Your task to perform on an android device: delete location history Image 0: 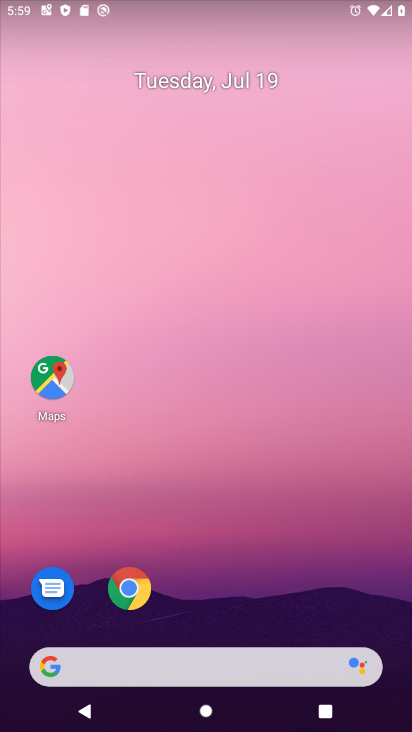
Step 0: drag from (217, 628) to (226, 2)
Your task to perform on an android device: delete location history Image 1: 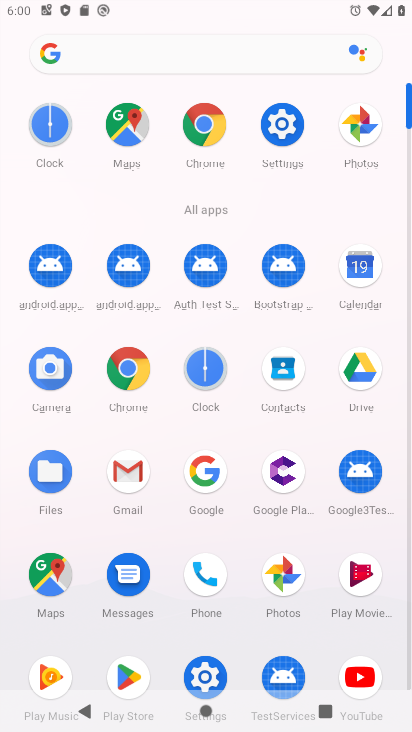
Step 1: click (31, 573)
Your task to perform on an android device: delete location history Image 2: 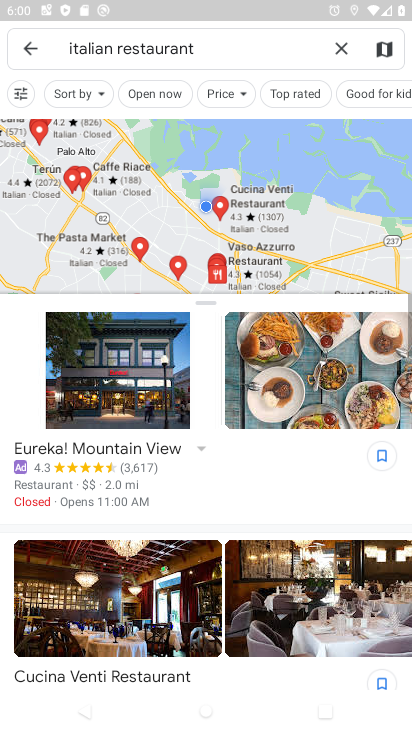
Step 2: click (34, 61)
Your task to perform on an android device: delete location history Image 3: 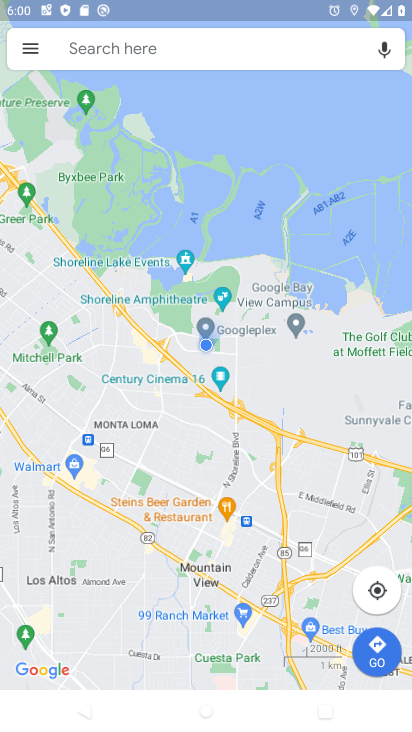
Step 3: click (43, 47)
Your task to perform on an android device: delete location history Image 4: 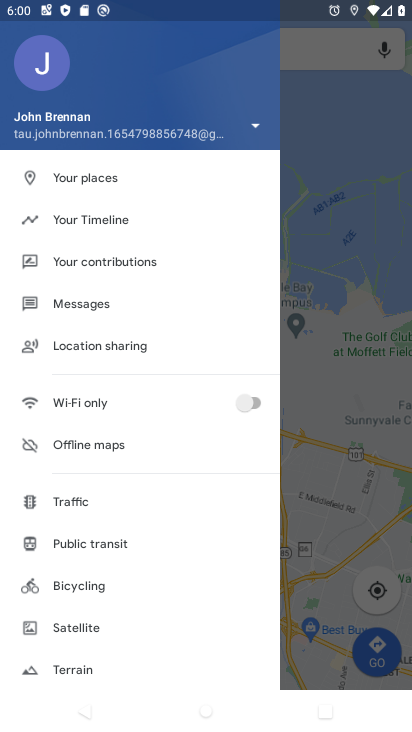
Step 4: click (110, 230)
Your task to perform on an android device: delete location history Image 5: 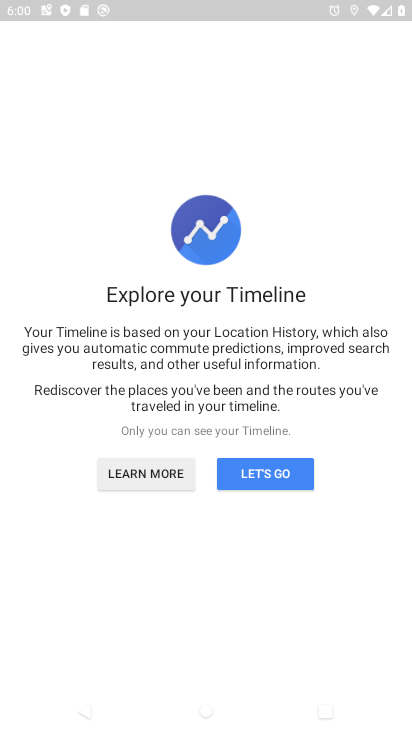
Step 5: click (263, 484)
Your task to perform on an android device: delete location history Image 6: 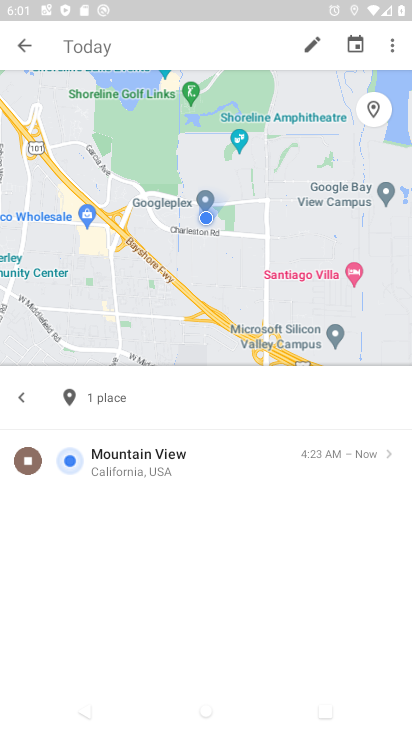
Step 6: click (401, 51)
Your task to perform on an android device: delete location history Image 7: 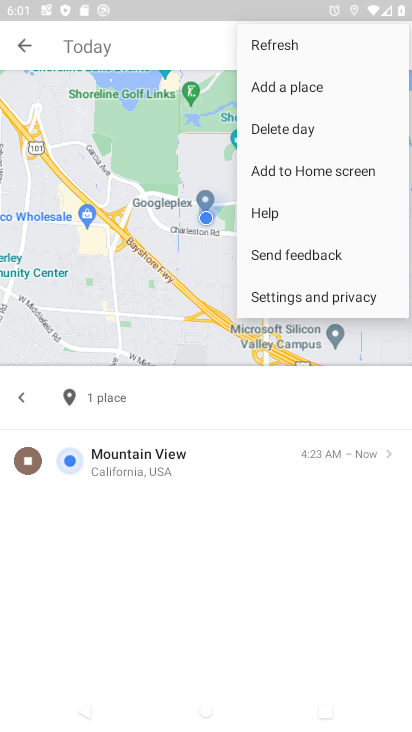
Step 7: click (292, 303)
Your task to perform on an android device: delete location history Image 8: 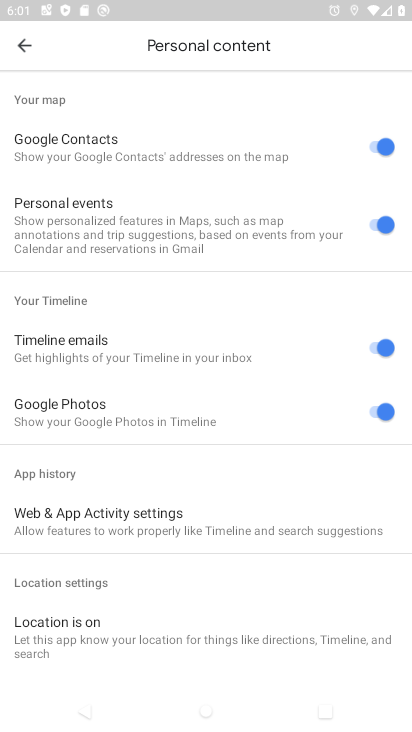
Step 8: drag from (130, 642) to (133, 109)
Your task to perform on an android device: delete location history Image 9: 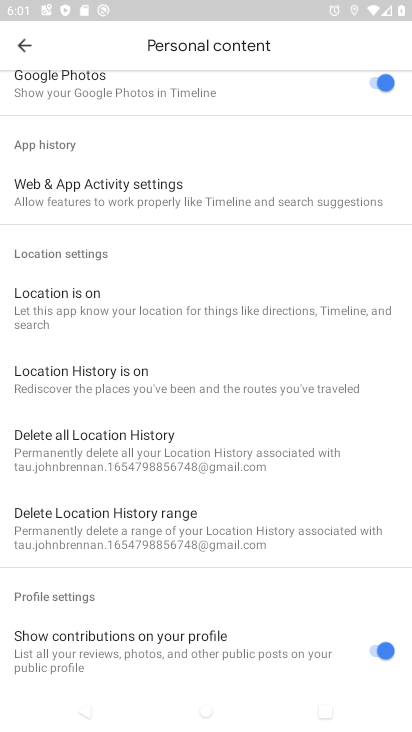
Step 9: click (147, 453)
Your task to perform on an android device: delete location history Image 10: 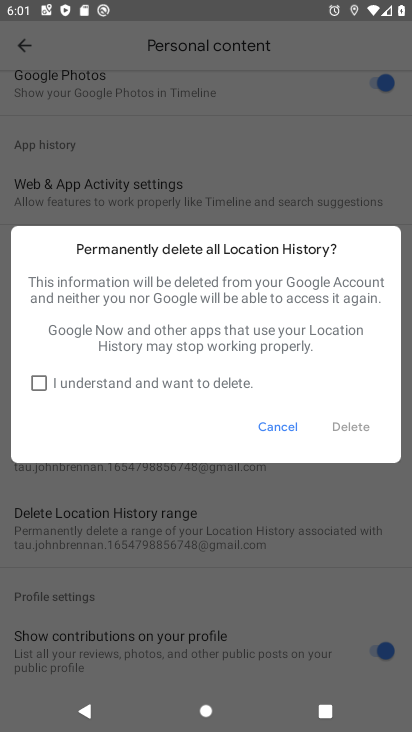
Step 10: click (41, 388)
Your task to perform on an android device: delete location history Image 11: 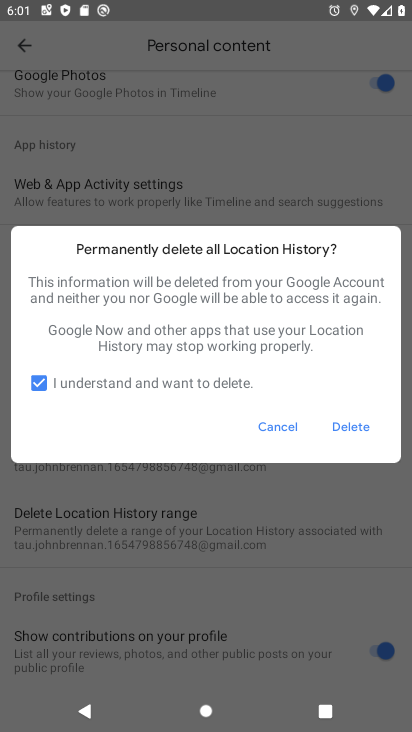
Step 11: click (338, 427)
Your task to perform on an android device: delete location history Image 12: 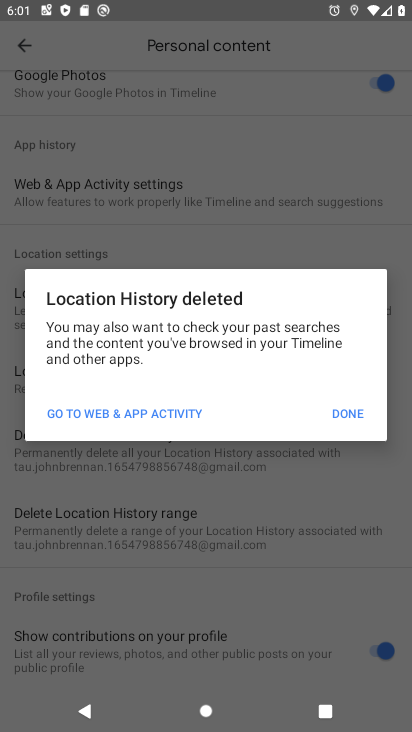
Step 12: click (350, 425)
Your task to perform on an android device: delete location history Image 13: 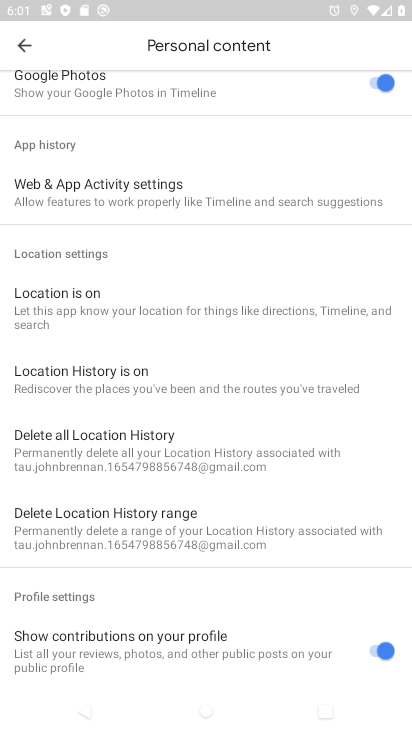
Step 13: task complete